Your task to perform on an android device: Open the calendar and show me this week's events Image 0: 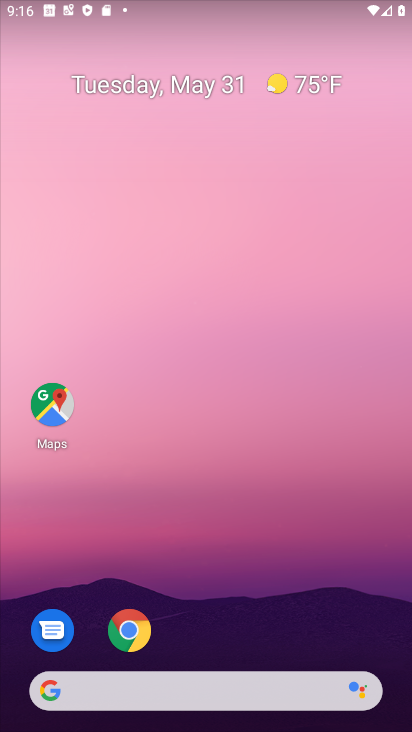
Step 0: drag from (233, 603) to (267, 257)
Your task to perform on an android device: Open the calendar and show me this week's events Image 1: 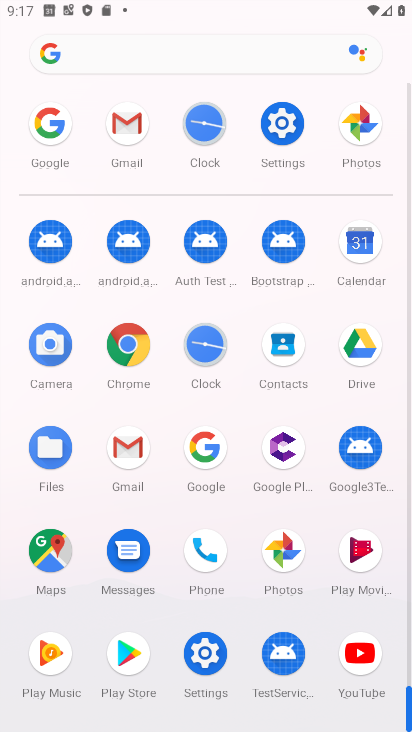
Step 1: click (348, 267)
Your task to perform on an android device: Open the calendar and show me this week's events Image 2: 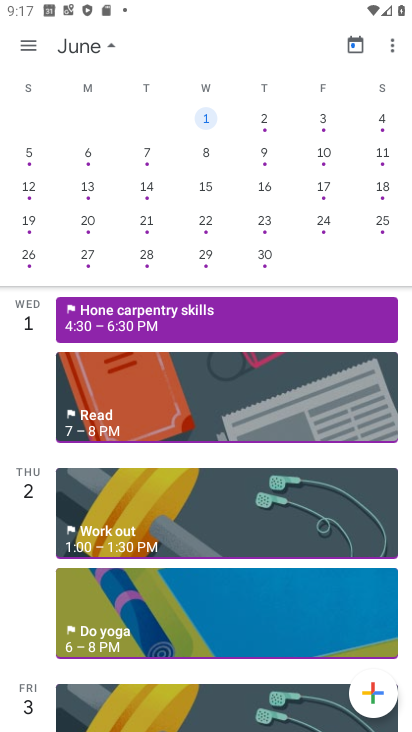
Step 2: drag from (58, 213) to (404, 223)
Your task to perform on an android device: Open the calendar and show me this week's events Image 3: 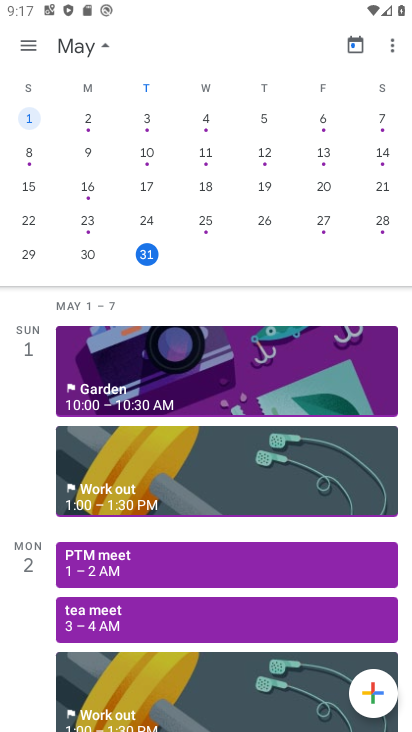
Step 3: click (149, 257)
Your task to perform on an android device: Open the calendar and show me this week's events Image 4: 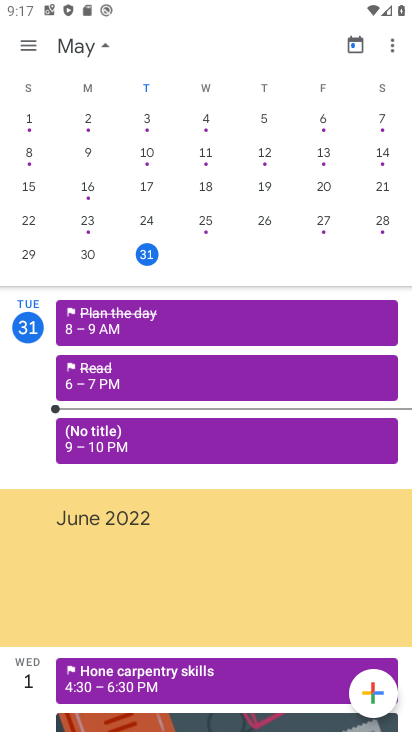
Step 4: task complete